Your task to perform on an android device: What is the recent news? Image 0: 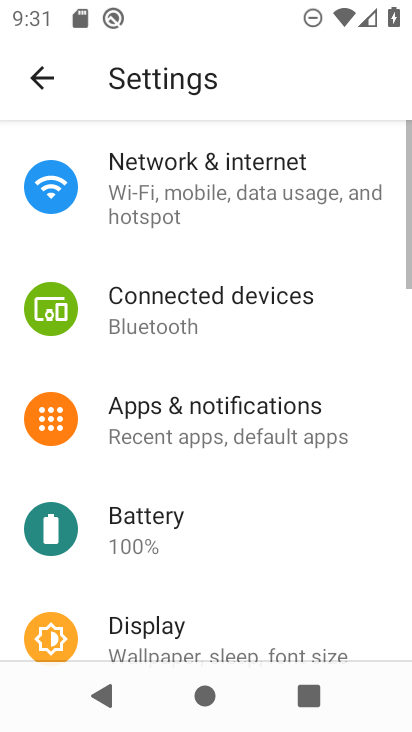
Step 0: press home button
Your task to perform on an android device: What is the recent news? Image 1: 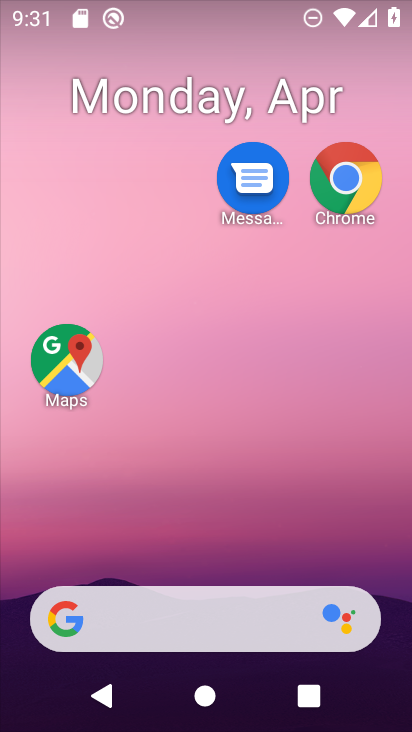
Step 1: drag from (297, 643) to (338, 283)
Your task to perform on an android device: What is the recent news? Image 2: 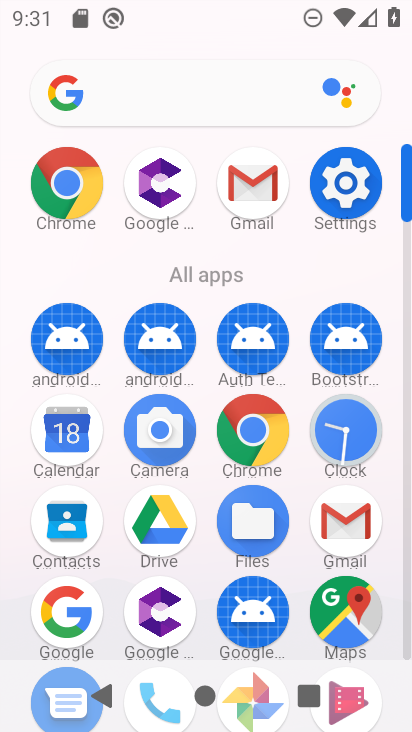
Step 2: drag from (224, 573) to (245, 283)
Your task to perform on an android device: What is the recent news? Image 3: 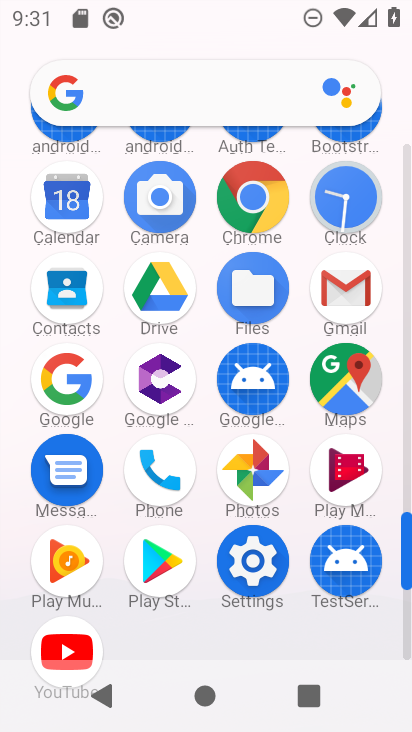
Step 3: click (157, 399)
Your task to perform on an android device: What is the recent news? Image 4: 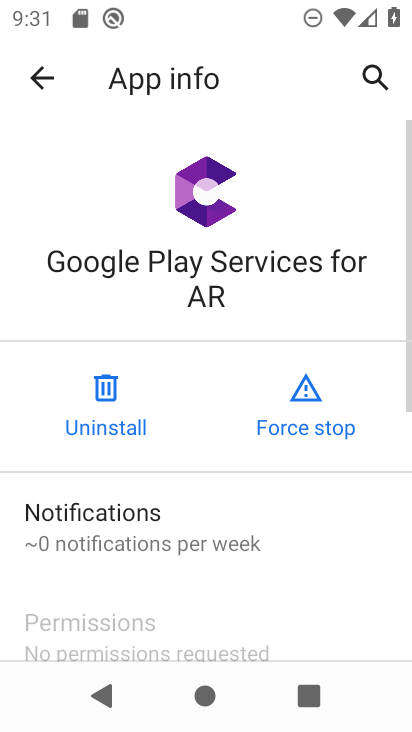
Step 4: click (116, 711)
Your task to perform on an android device: What is the recent news? Image 5: 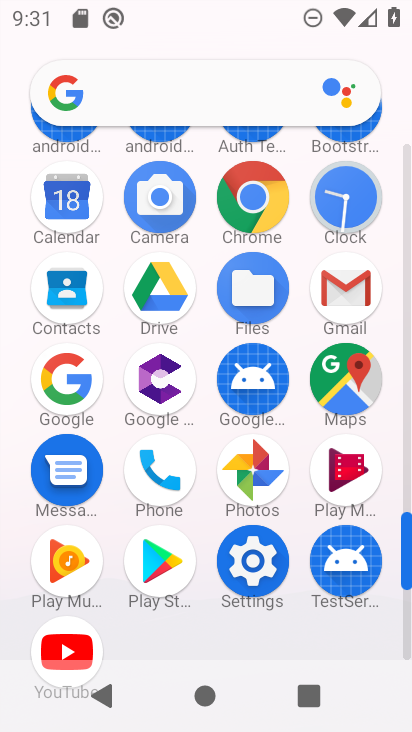
Step 5: click (68, 397)
Your task to perform on an android device: What is the recent news? Image 6: 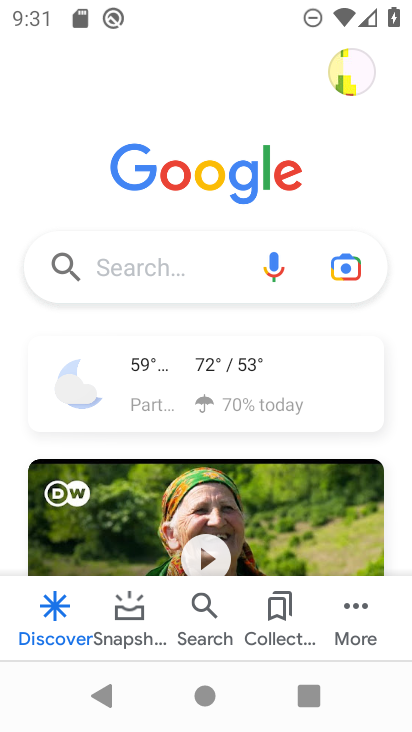
Step 6: click (140, 302)
Your task to perform on an android device: What is the recent news? Image 7: 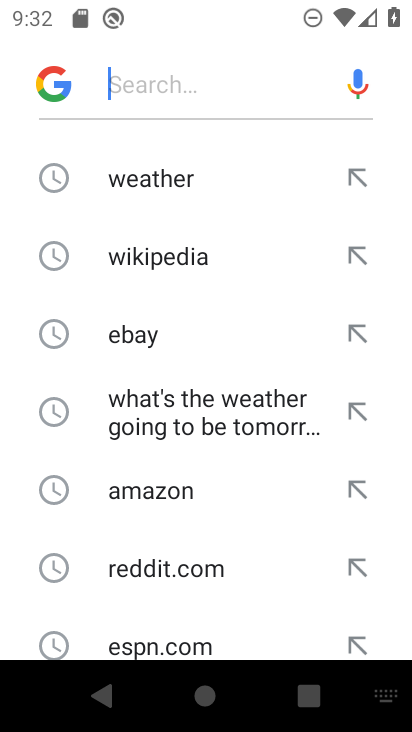
Step 7: drag from (201, 537) to (297, 142)
Your task to perform on an android device: What is the recent news? Image 8: 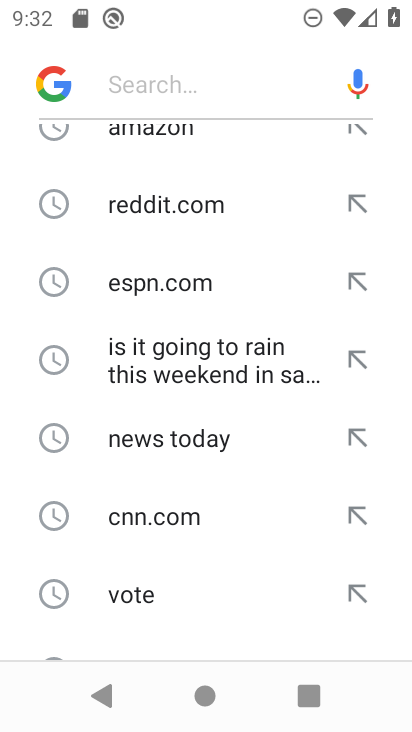
Step 8: drag from (227, 537) to (260, 328)
Your task to perform on an android device: What is the recent news? Image 9: 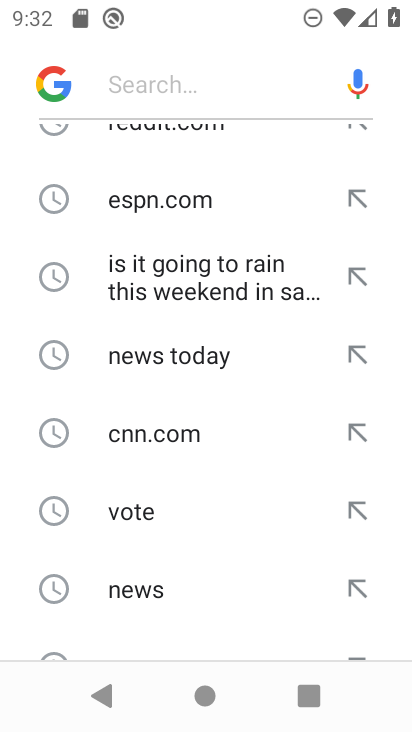
Step 9: click (229, 365)
Your task to perform on an android device: What is the recent news? Image 10: 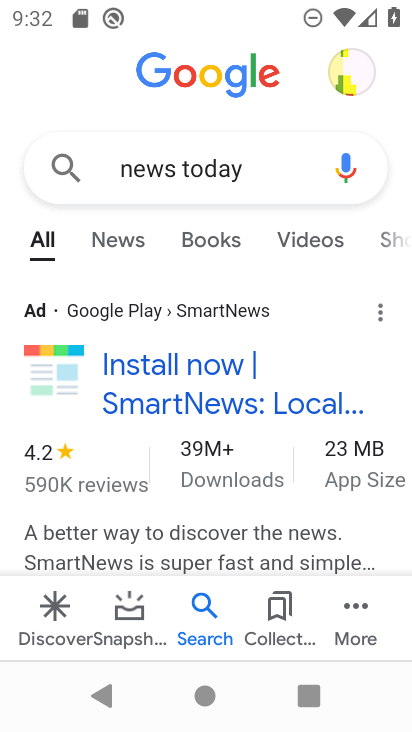
Step 10: task complete